Your task to perform on an android device: Search for seafood restaurants on Google Maps Image 0: 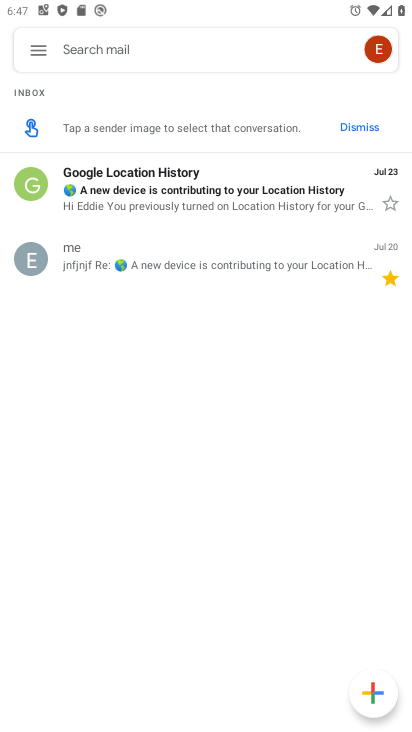
Step 0: press home button
Your task to perform on an android device: Search for seafood restaurants on Google Maps Image 1: 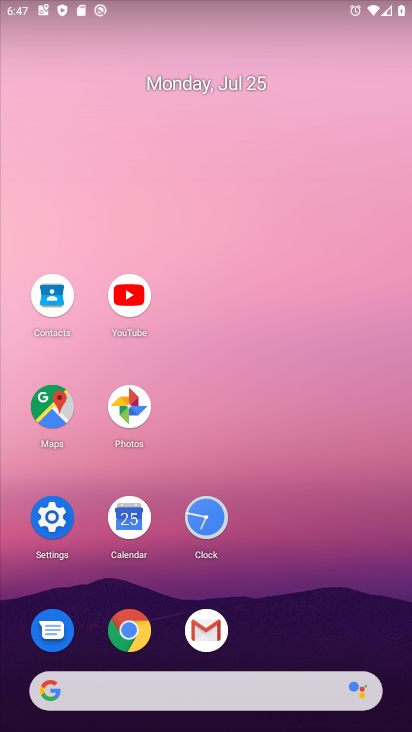
Step 1: click (47, 405)
Your task to perform on an android device: Search for seafood restaurants on Google Maps Image 2: 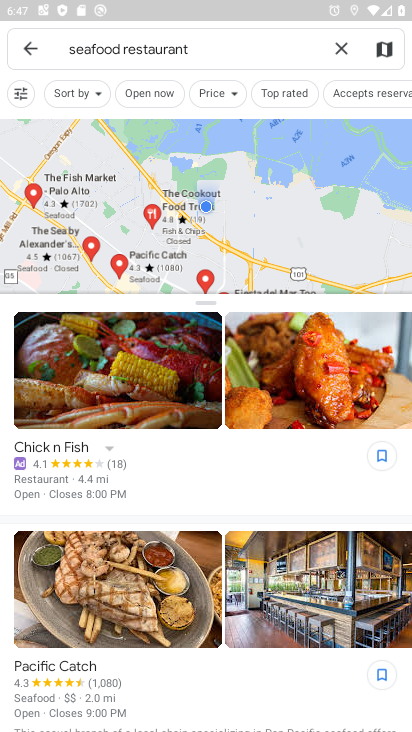
Step 2: task complete